Your task to perform on an android device: Open notification settings Image 0: 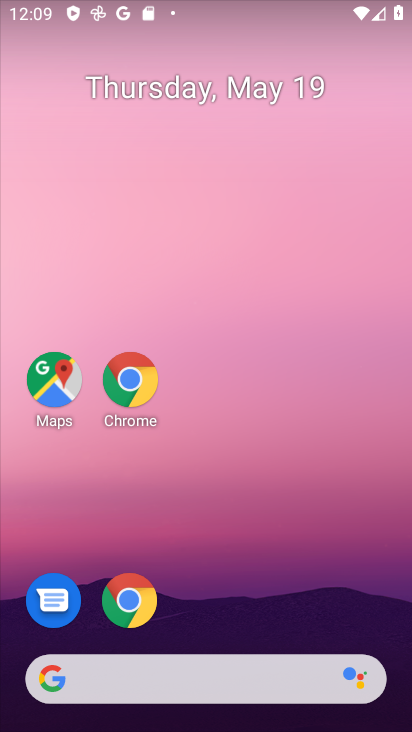
Step 0: drag from (348, 621) to (158, 92)
Your task to perform on an android device: Open notification settings Image 1: 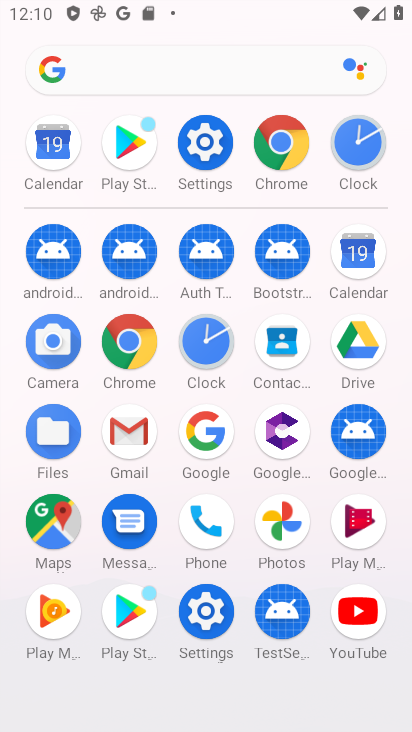
Step 1: click (200, 140)
Your task to perform on an android device: Open notification settings Image 2: 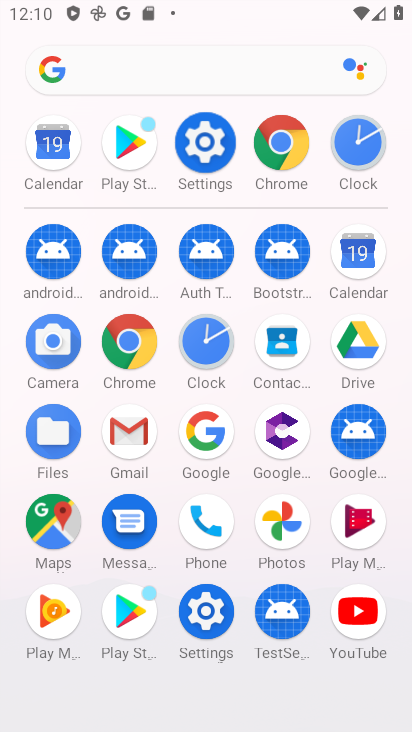
Step 2: click (200, 140)
Your task to perform on an android device: Open notification settings Image 3: 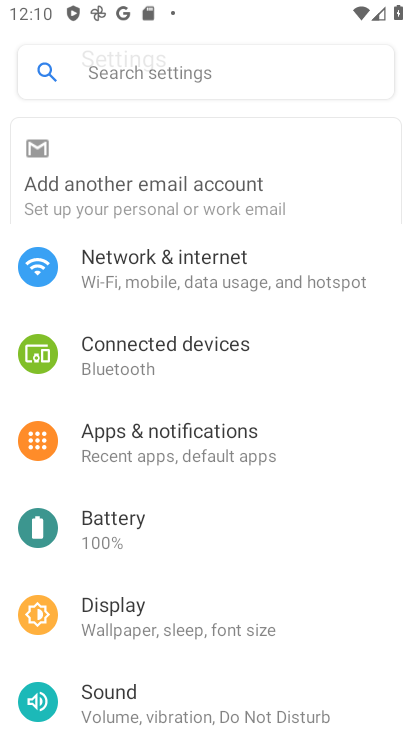
Step 3: click (201, 141)
Your task to perform on an android device: Open notification settings Image 4: 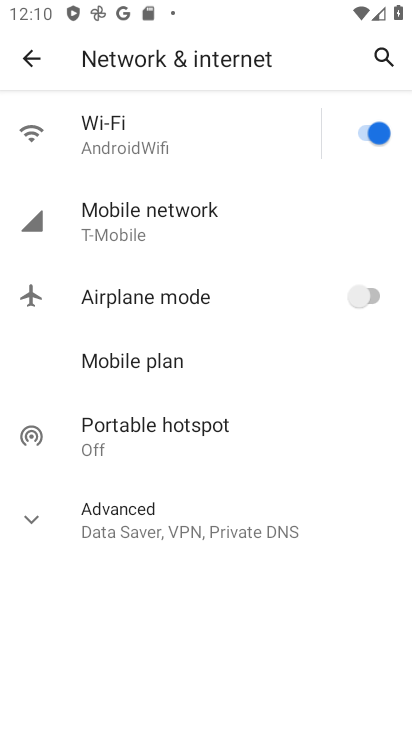
Step 4: click (39, 62)
Your task to perform on an android device: Open notification settings Image 5: 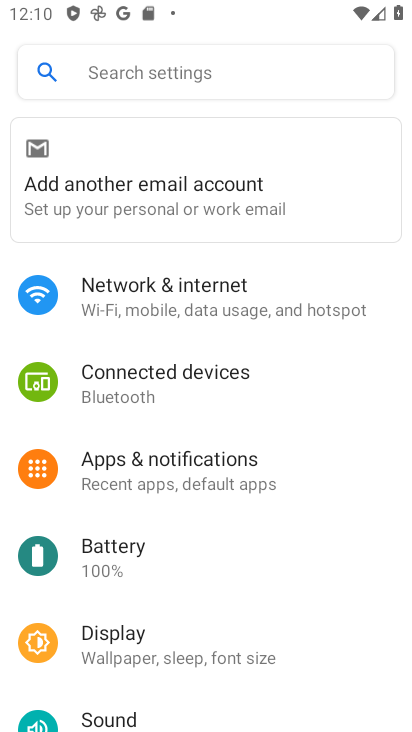
Step 5: click (156, 466)
Your task to perform on an android device: Open notification settings Image 6: 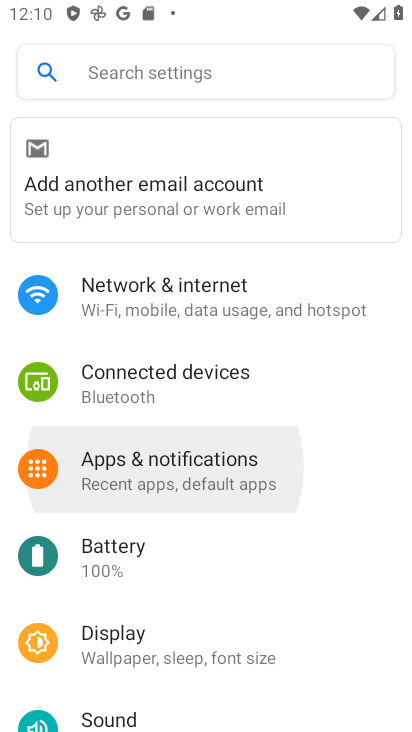
Step 6: click (160, 473)
Your task to perform on an android device: Open notification settings Image 7: 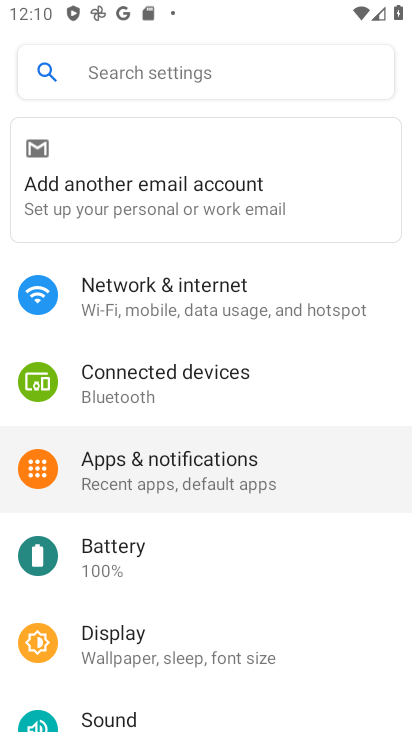
Step 7: click (160, 473)
Your task to perform on an android device: Open notification settings Image 8: 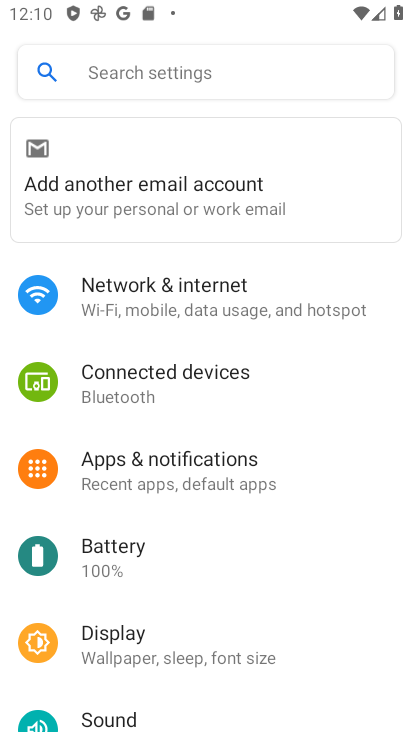
Step 8: click (138, 461)
Your task to perform on an android device: Open notification settings Image 9: 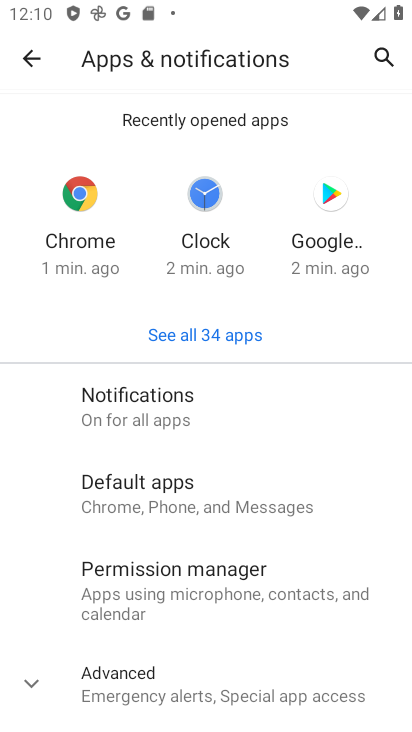
Step 9: click (130, 397)
Your task to perform on an android device: Open notification settings Image 10: 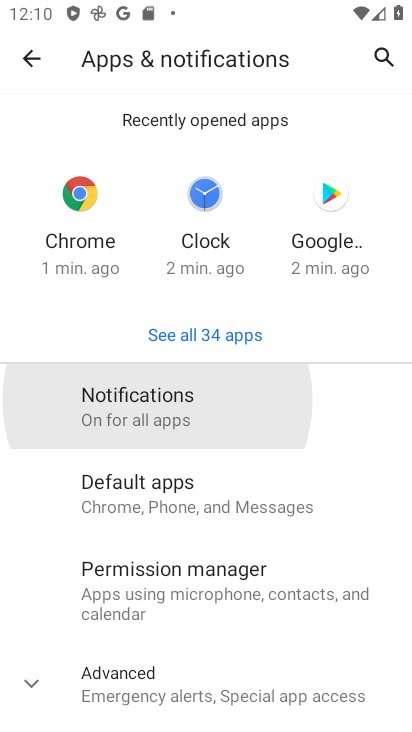
Step 10: click (131, 402)
Your task to perform on an android device: Open notification settings Image 11: 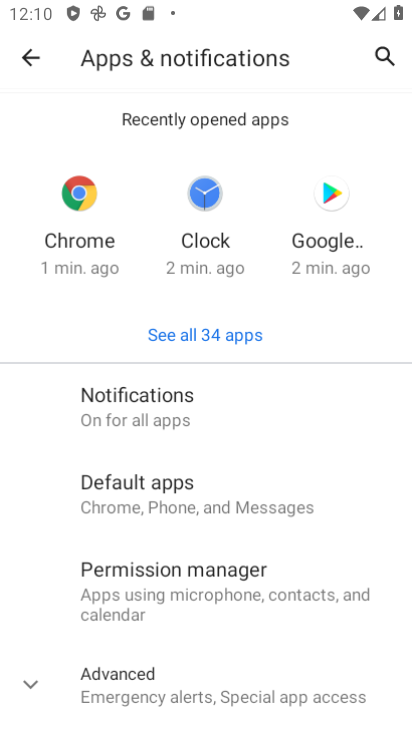
Step 11: click (114, 390)
Your task to perform on an android device: Open notification settings Image 12: 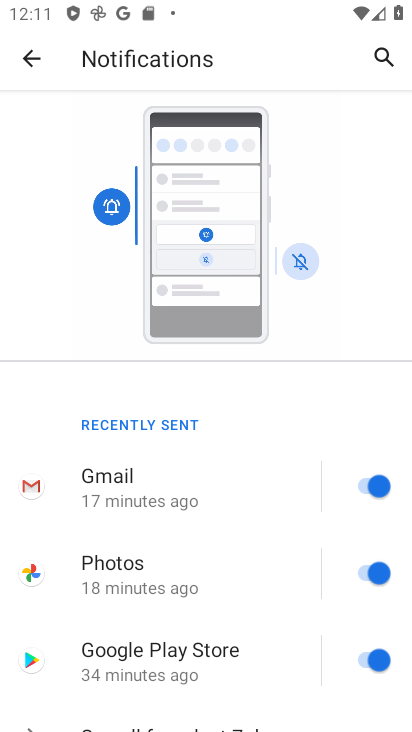
Step 12: task complete